Your task to perform on an android device: Show me popular games on the Play Store Image 0: 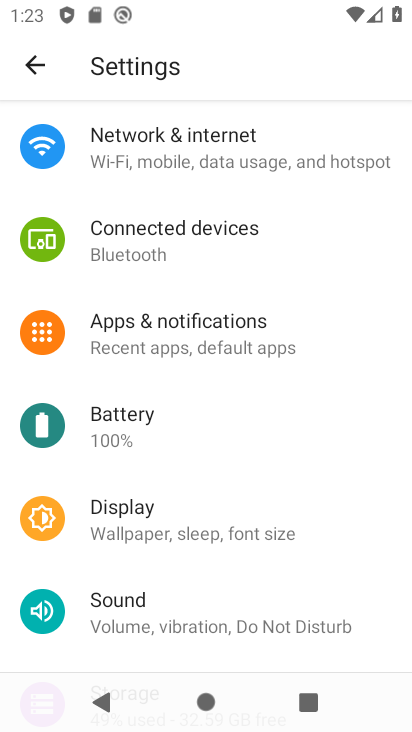
Step 0: press home button
Your task to perform on an android device: Show me popular games on the Play Store Image 1: 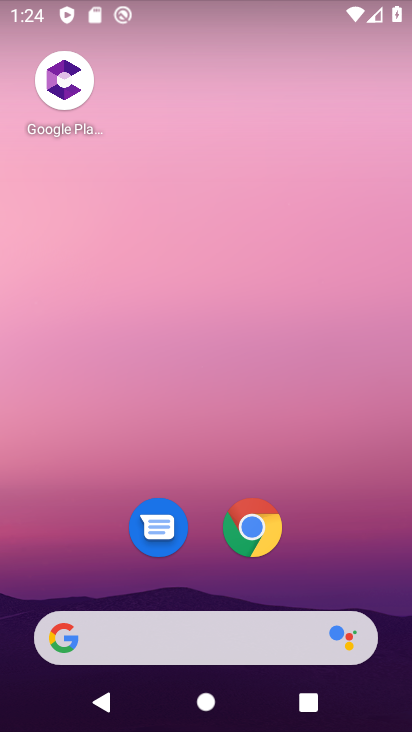
Step 1: drag from (191, 594) to (231, 14)
Your task to perform on an android device: Show me popular games on the Play Store Image 2: 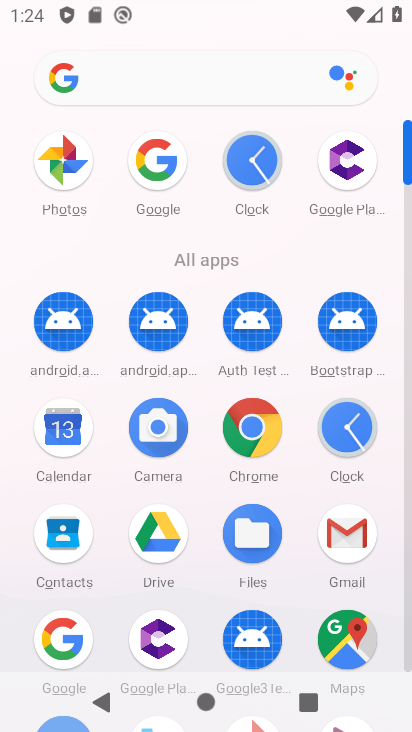
Step 2: drag from (121, 624) to (206, 221)
Your task to perform on an android device: Show me popular games on the Play Store Image 3: 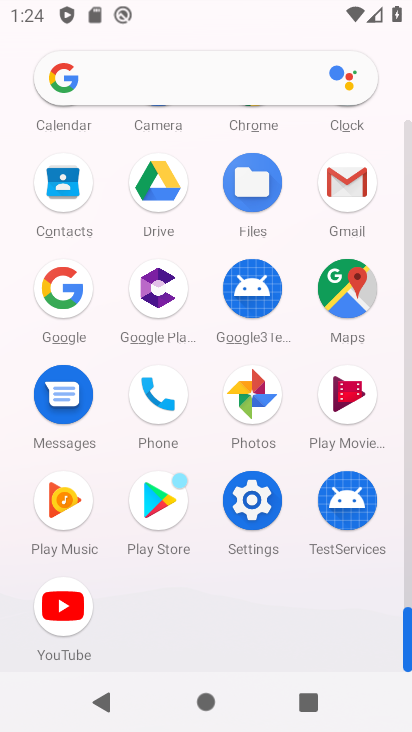
Step 3: click (154, 515)
Your task to perform on an android device: Show me popular games on the Play Store Image 4: 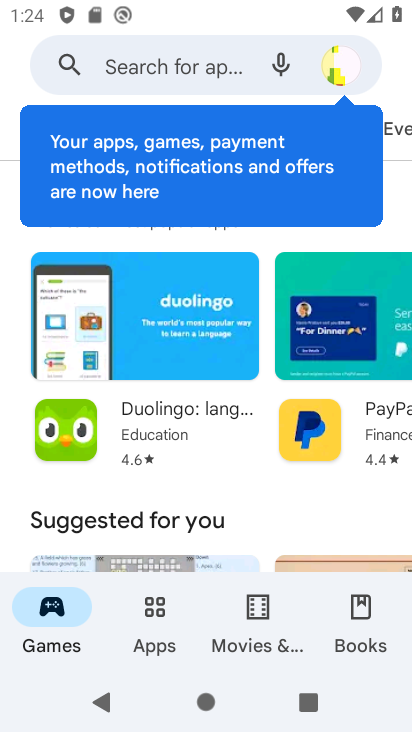
Step 4: click (305, 497)
Your task to perform on an android device: Show me popular games on the Play Store Image 5: 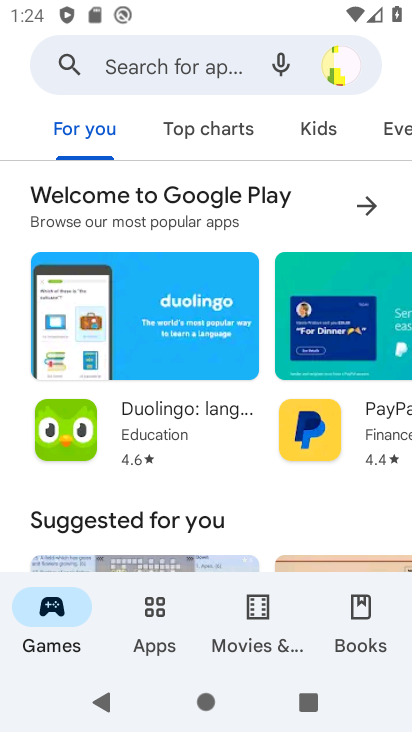
Step 5: click (205, 137)
Your task to perform on an android device: Show me popular games on the Play Store Image 6: 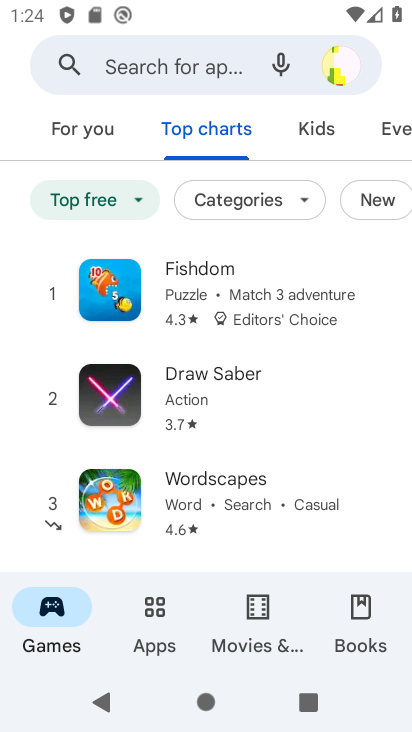
Step 6: task complete